Your task to perform on an android device: Open Google Chrome Image 0: 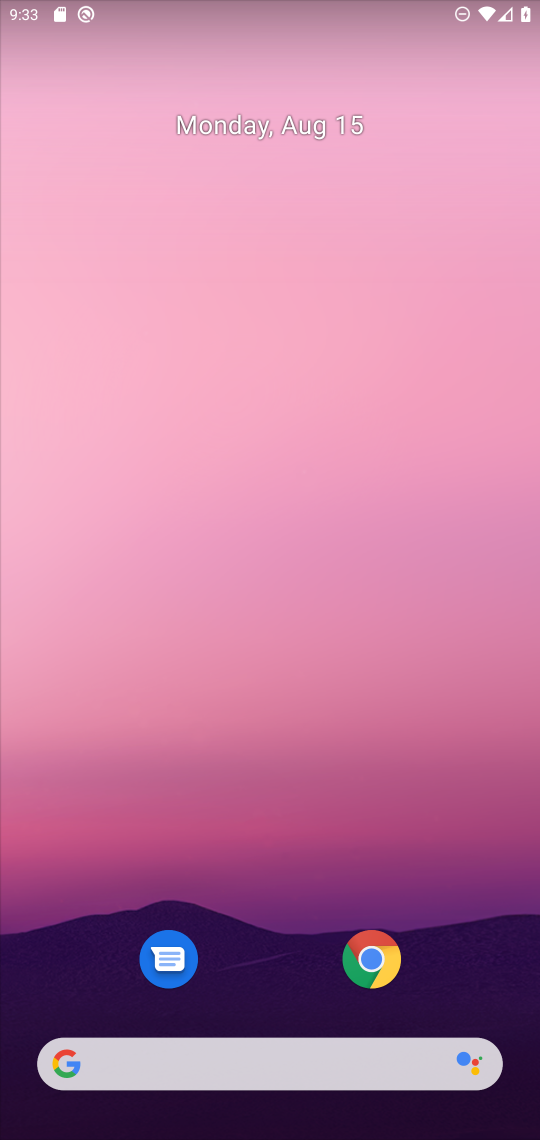
Step 0: drag from (273, 1011) to (244, 133)
Your task to perform on an android device: Open Google Chrome Image 1: 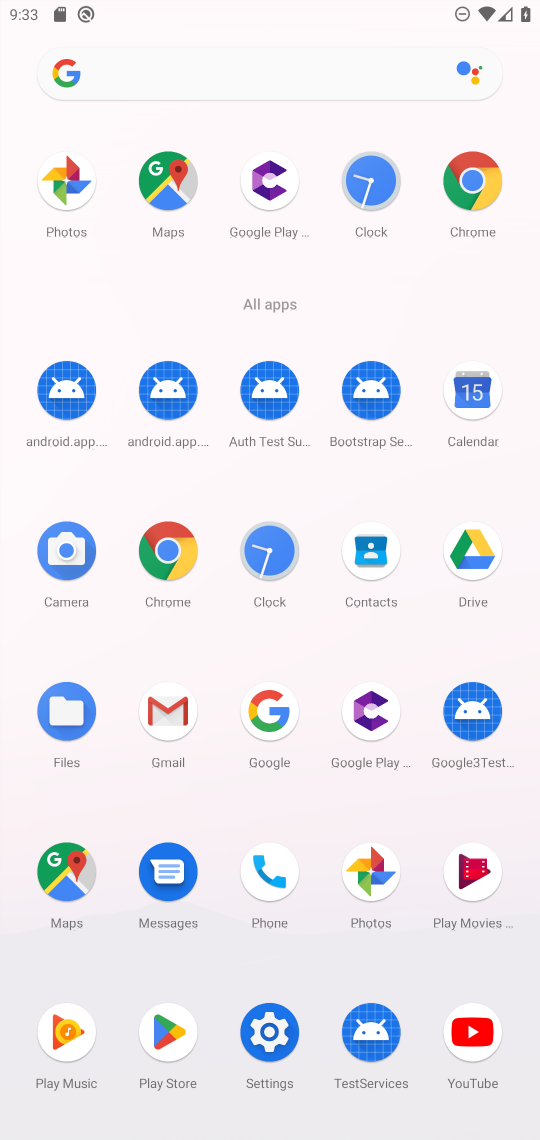
Step 1: click (135, 558)
Your task to perform on an android device: Open Google Chrome Image 2: 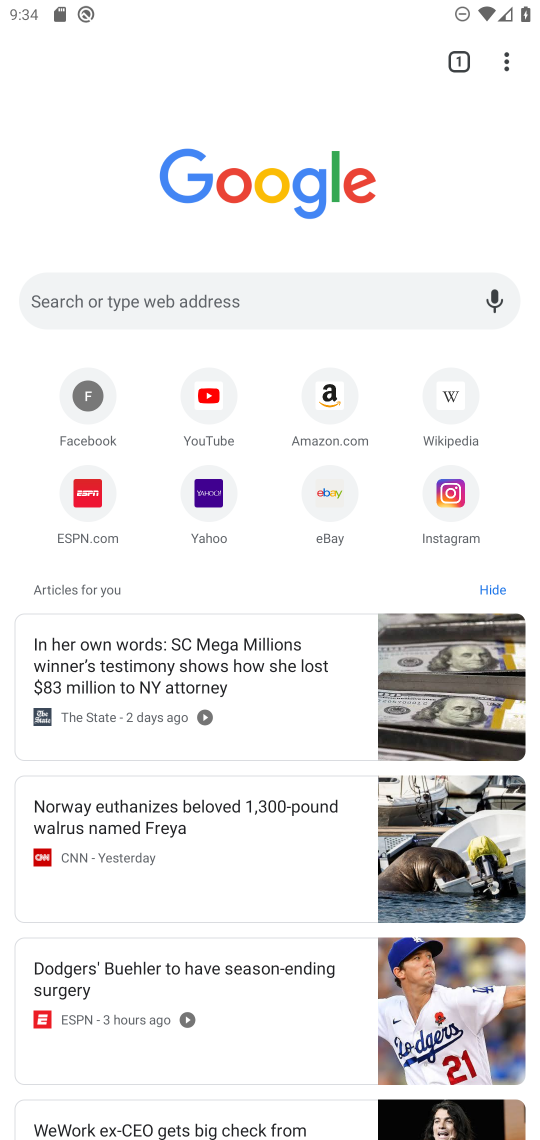
Step 2: task complete